Your task to perform on an android device: open the mobile data screen to see how much data has been used Image 0: 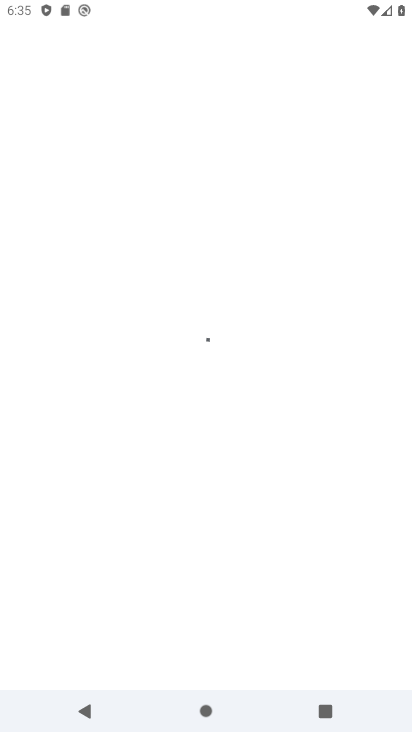
Step 0: press home button
Your task to perform on an android device: open the mobile data screen to see how much data has been used Image 1: 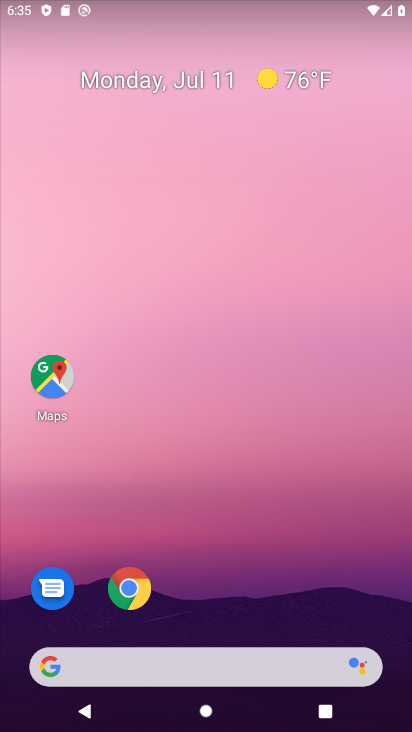
Step 1: drag from (260, 521) to (238, 135)
Your task to perform on an android device: open the mobile data screen to see how much data has been used Image 2: 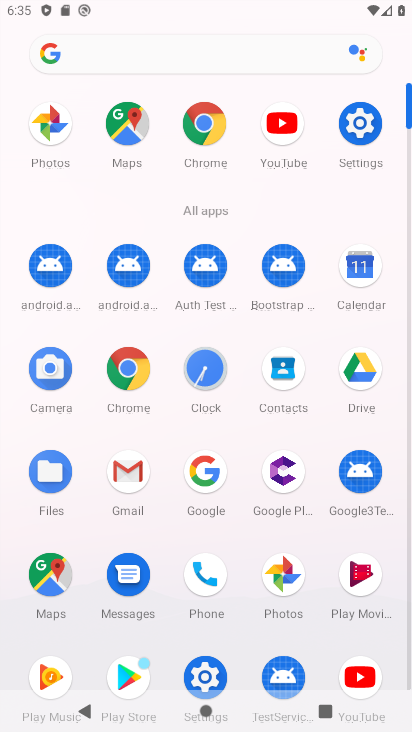
Step 2: click (354, 125)
Your task to perform on an android device: open the mobile data screen to see how much data has been used Image 3: 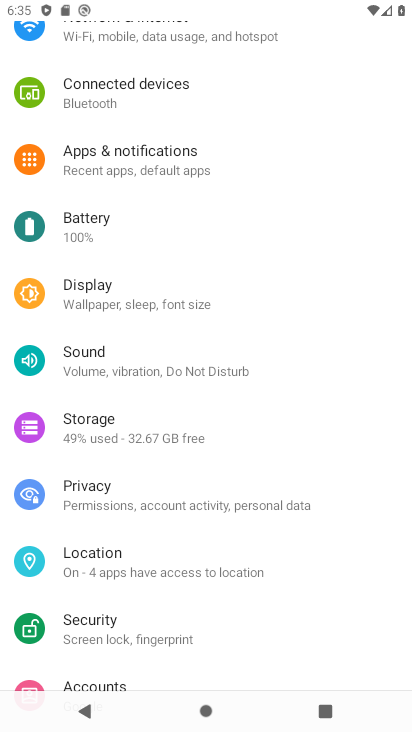
Step 3: drag from (231, 375) to (227, 480)
Your task to perform on an android device: open the mobile data screen to see how much data has been used Image 4: 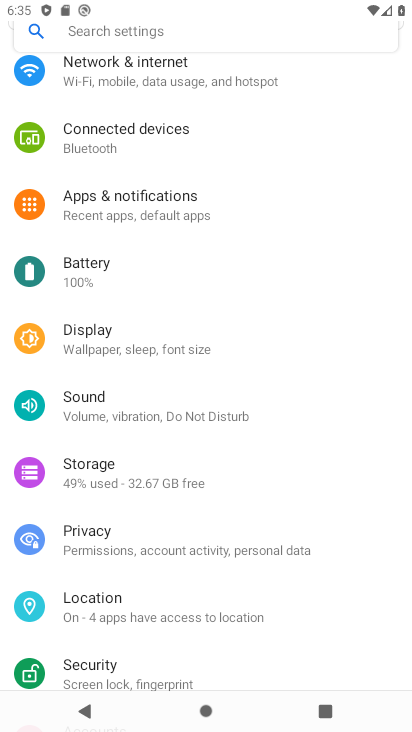
Step 4: click (135, 65)
Your task to perform on an android device: open the mobile data screen to see how much data has been used Image 5: 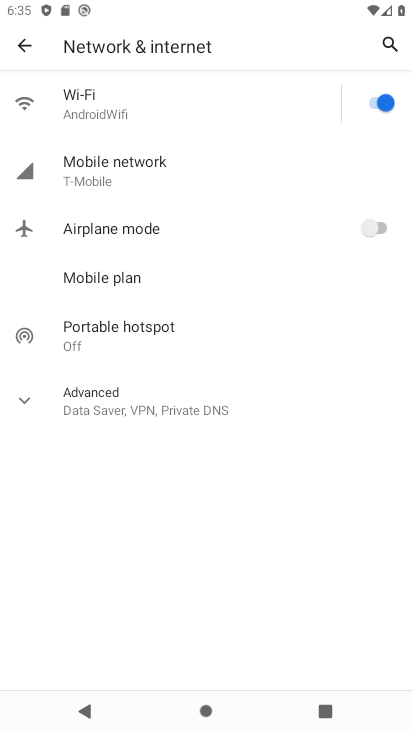
Step 5: click (127, 171)
Your task to perform on an android device: open the mobile data screen to see how much data has been used Image 6: 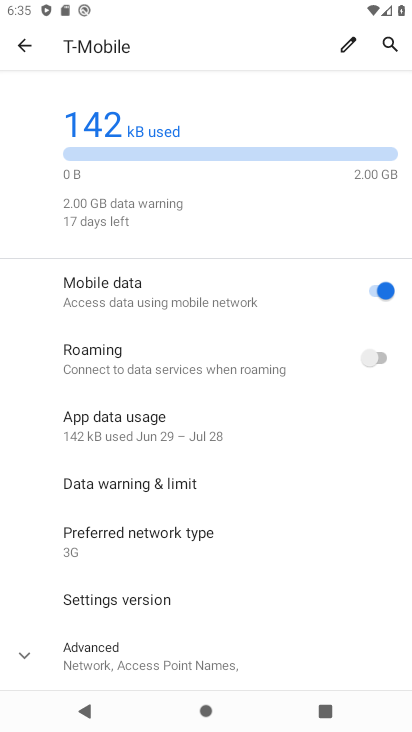
Step 6: task complete